Your task to perform on an android device: uninstall "The Home Depot" Image 0: 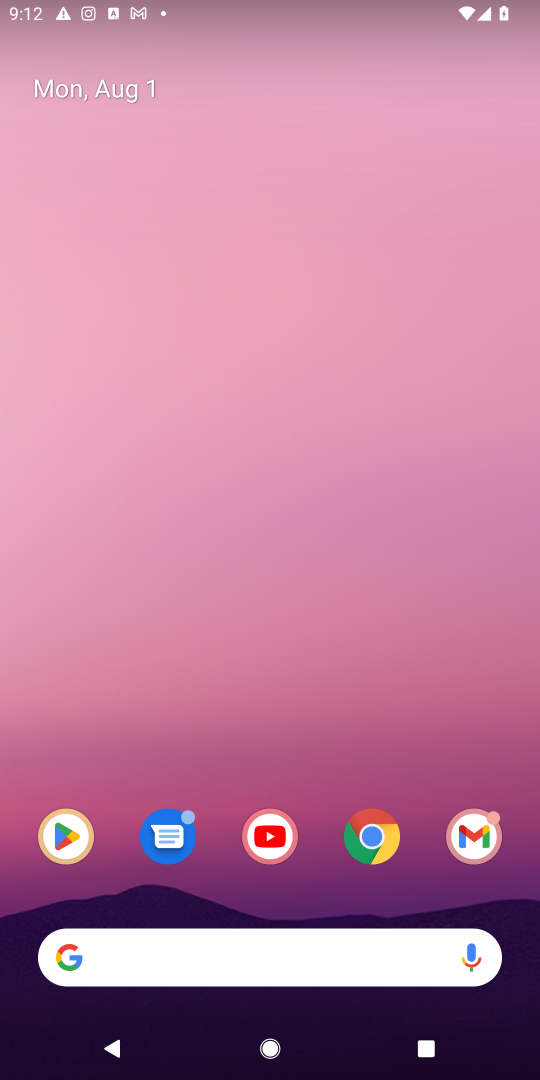
Step 0: press home button
Your task to perform on an android device: uninstall "The Home Depot" Image 1: 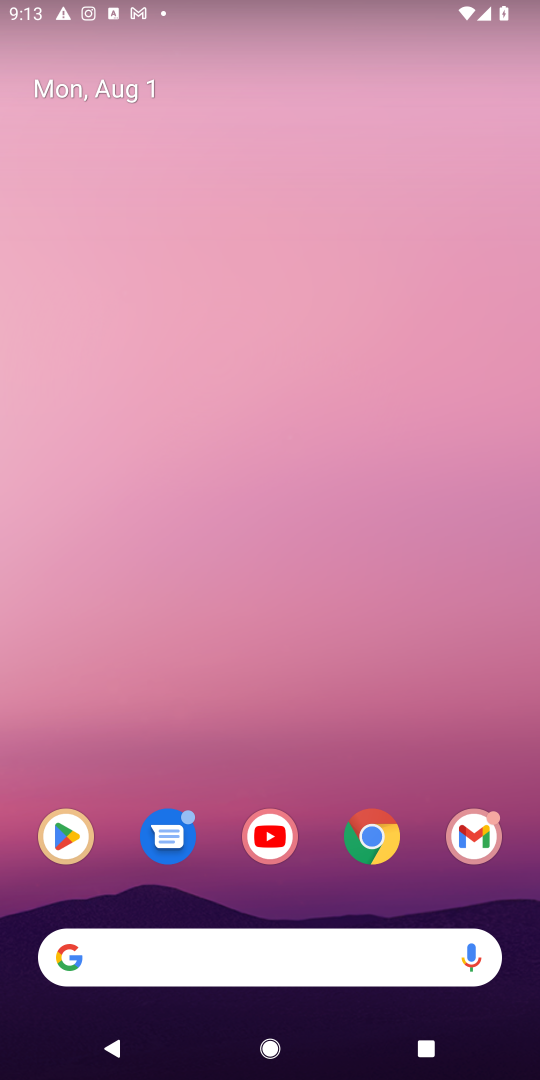
Step 1: click (62, 835)
Your task to perform on an android device: uninstall "The Home Depot" Image 2: 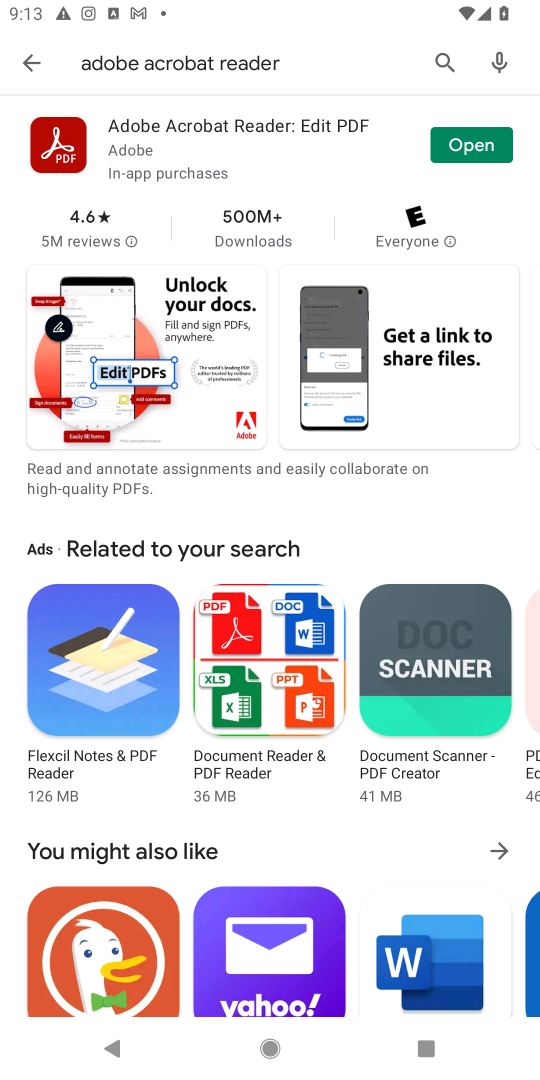
Step 2: click (435, 61)
Your task to perform on an android device: uninstall "The Home Depot" Image 3: 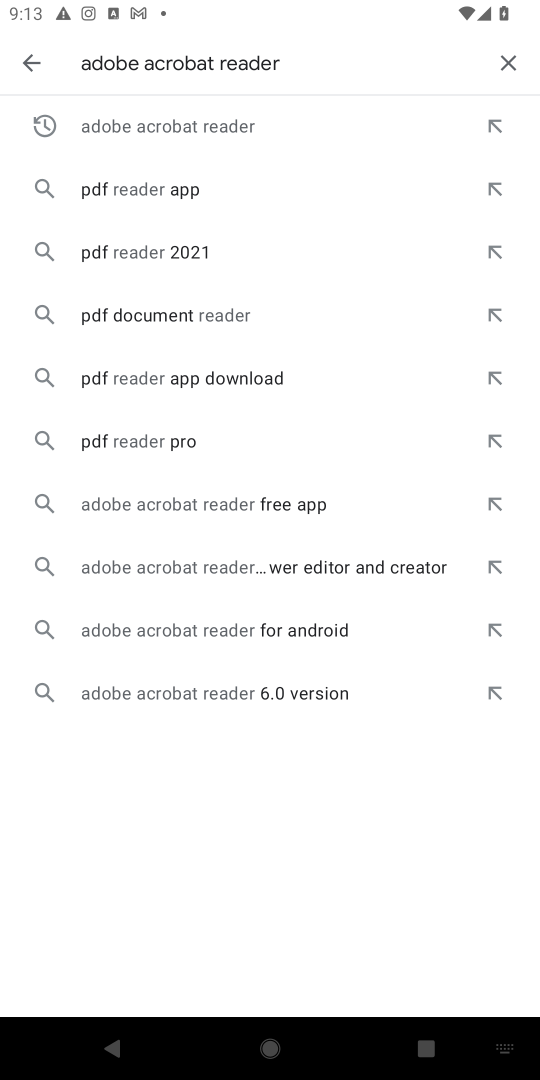
Step 3: click (512, 59)
Your task to perform on an android device: uninstall "The Home Depot" Image 4: 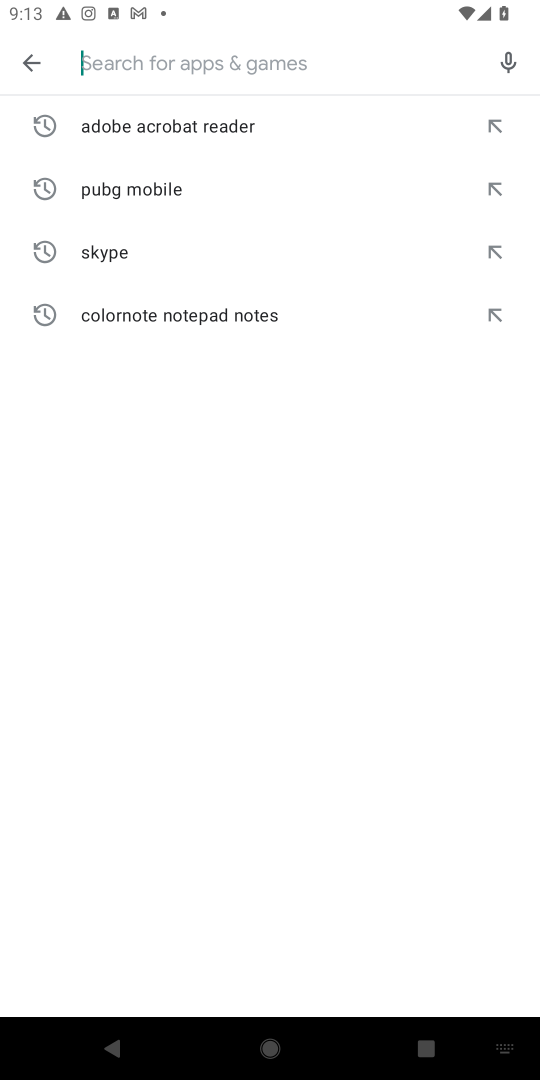
Step 4: type "The Home Depot"
Your task to perform on an android device: uninstall "The Home Depot" Image 5: 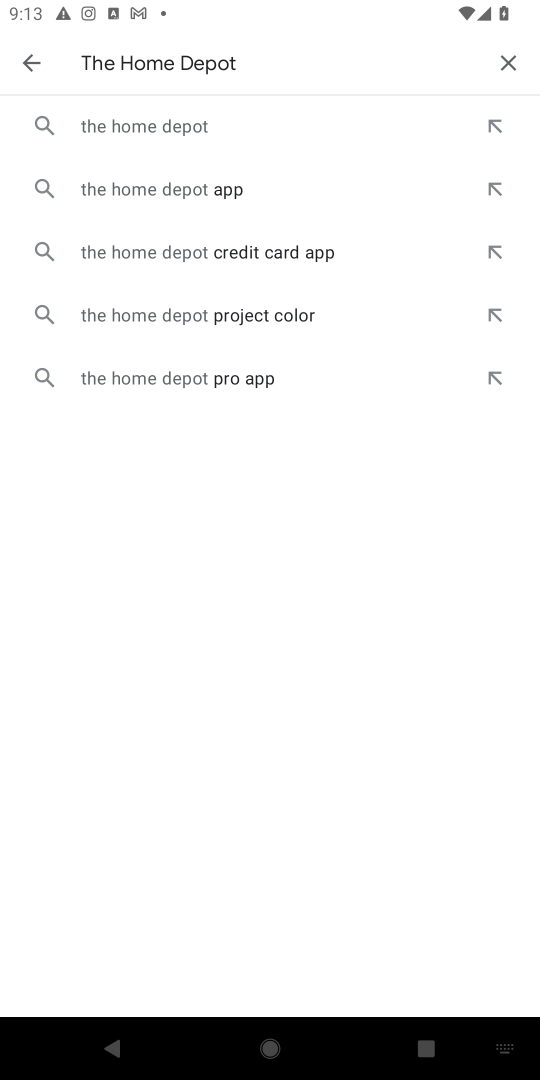
Step 5: click (169, 132)
Your task to perform on an android device: uninstall "The Home Depot" Image 6: 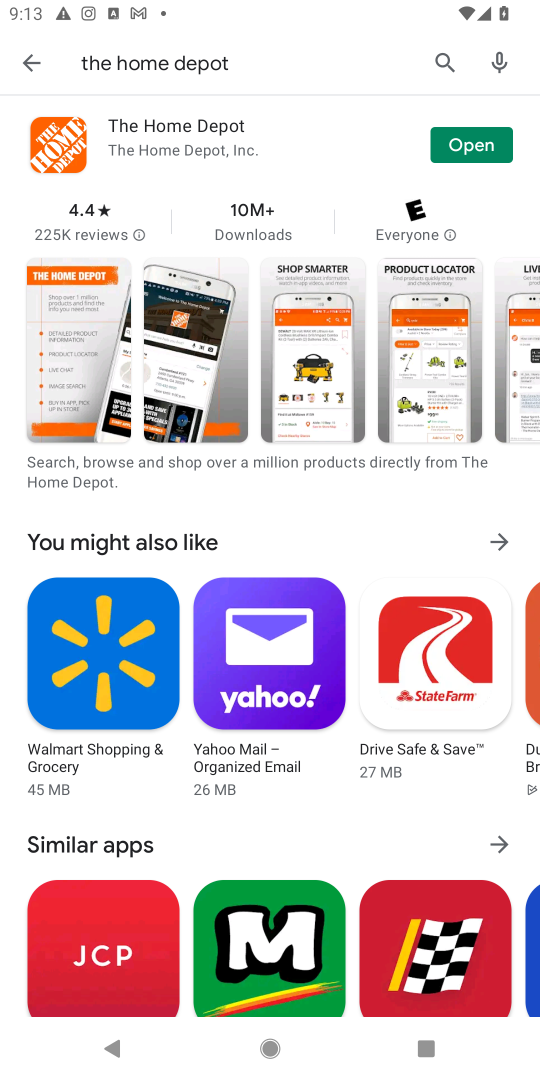
Step 6: click (137, 111)
Your task to perform on an android device: uninstall "The Home Depot" Image 7: 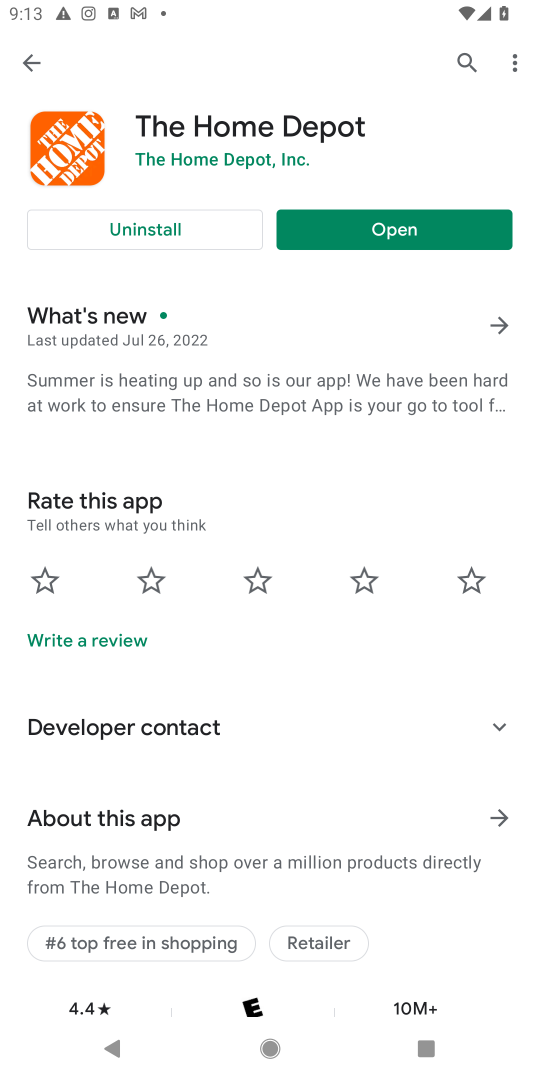
Step 7: click (155, 228)
Your task to perform on an android device: uninstall "The Home Depot" Image 8: 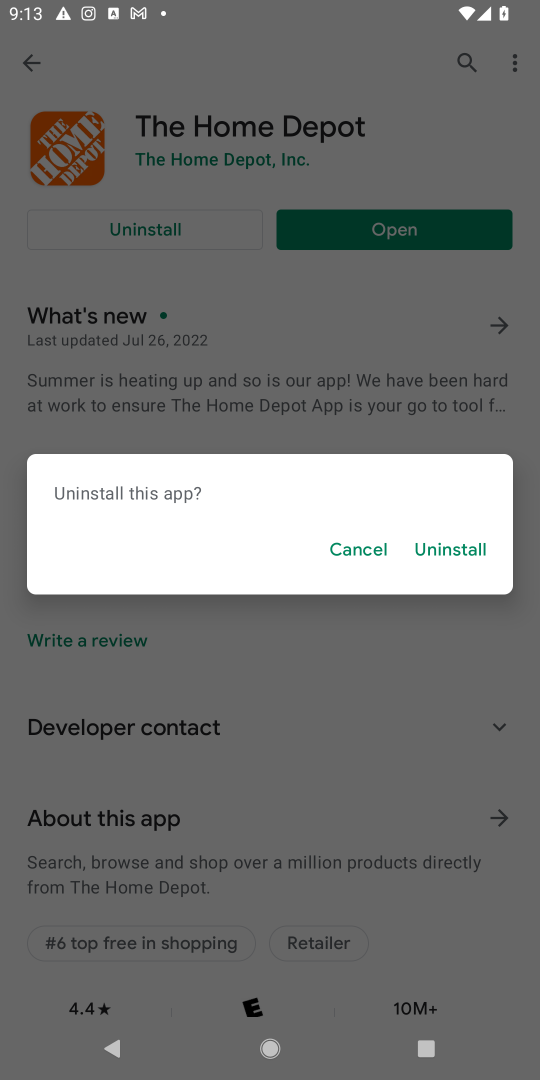
Step 8: click (441, 548)
Your task to perform on an android device: uninstall "The Home Depot" Image 9: 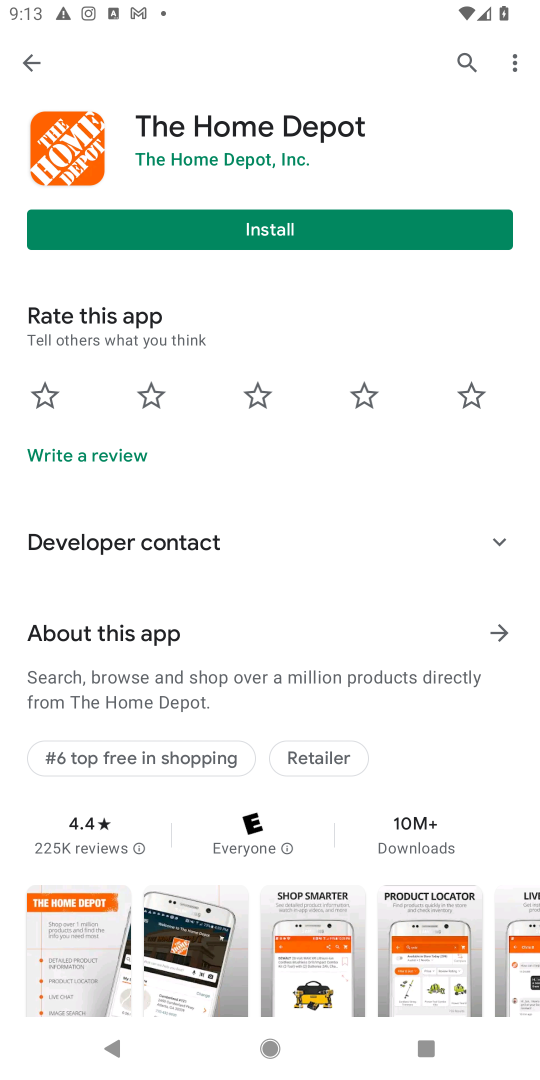
Step 9: task complete